Your task to perform on an android device: Clear all items from cart on newegg.com. Search for bose soundsport free on newegg.com, select the first entry, and add it to the cart. Image 0: 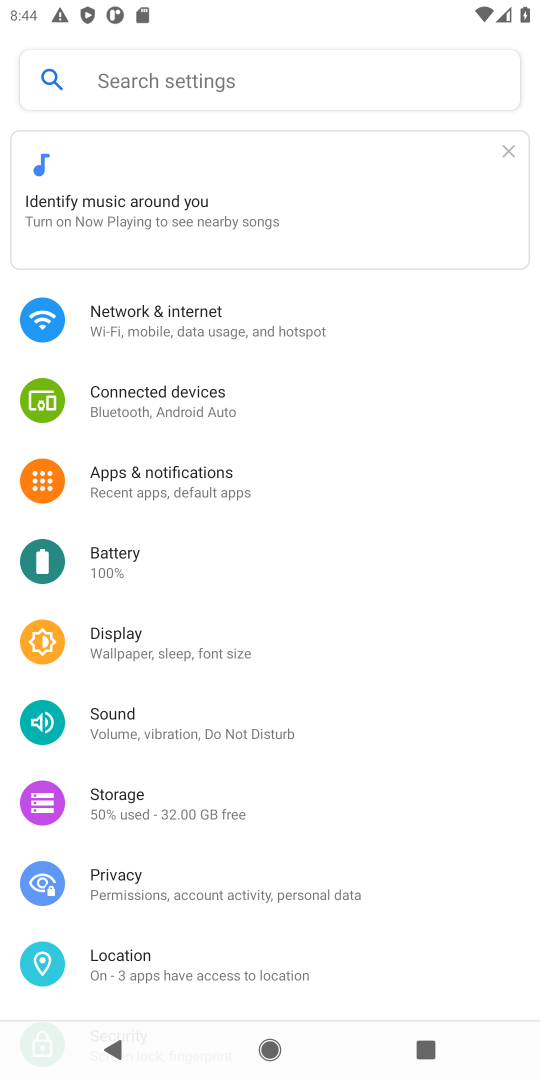
Step 0: press home button
Your task to perform on an android device: Clear all items from cart on newegg.com. Search for bose soundsport free on newegg.com, select the first entry, and add it to the cart. Image 1: 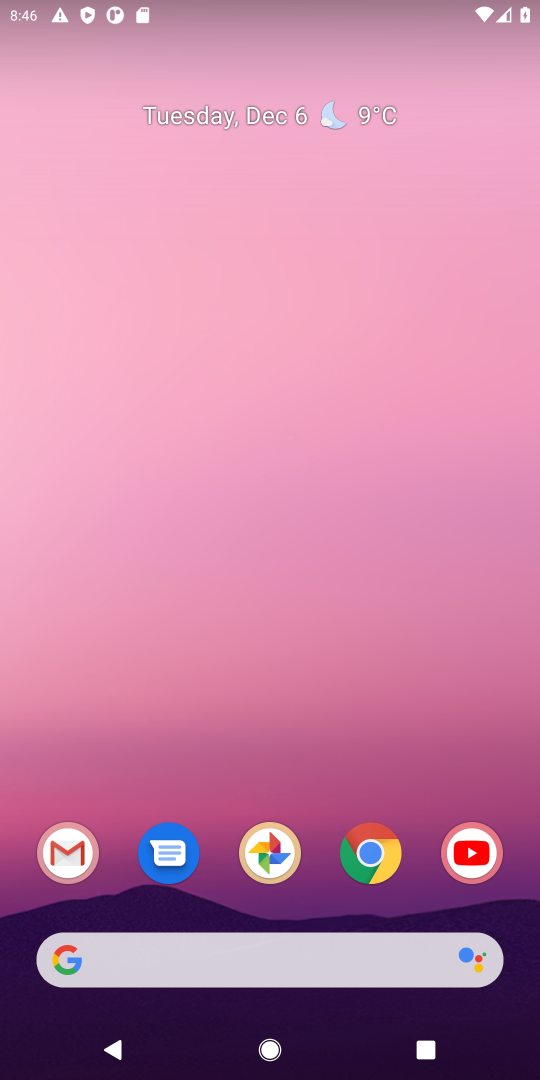
Step 1: click (360, 875)
Your task to perform on an android device: Clear all items from cart on newegg.com. Search for bose soundsport free on newegg.com, select the first entry, and add it to the cart. Image 2: 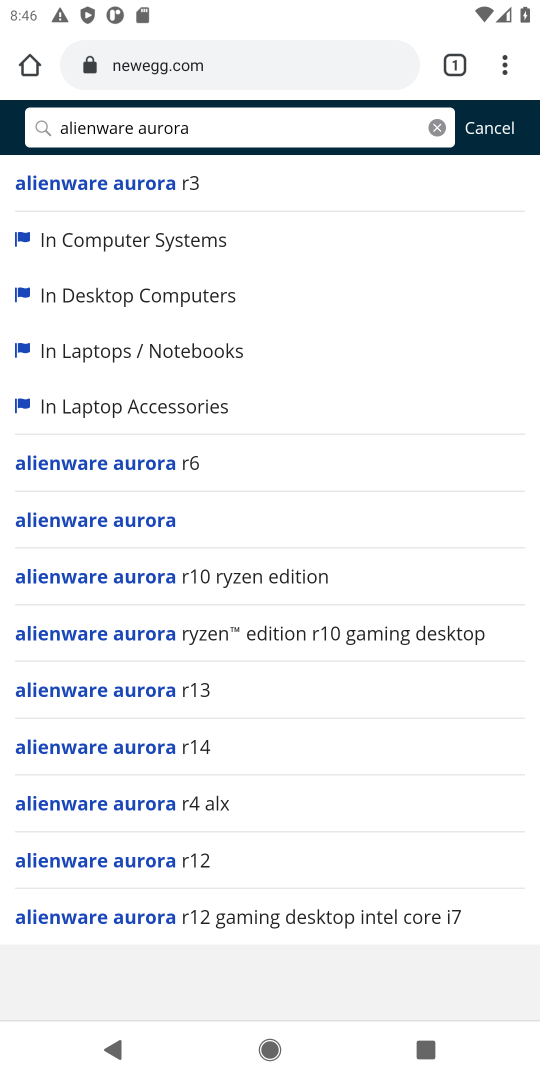
Step 2: click (436, 131)
Your task to perform on an android device: Clear all items from cart on newegg.com. Search for bose soundsport free on newegg.com, select the first entry, and add it to the cart. Image 3: 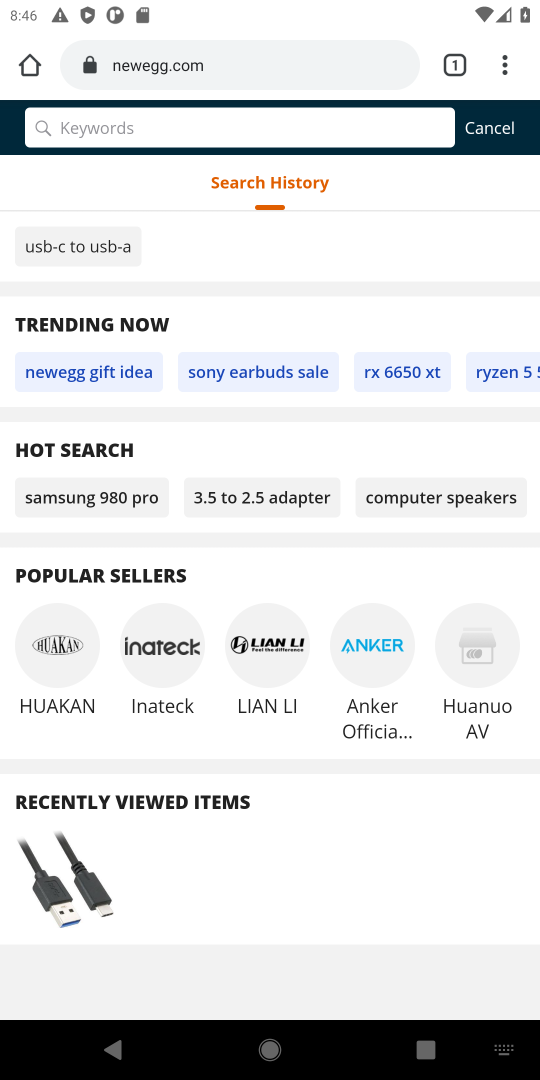
Step 3: click (27, 67)
Your task to perform on an android device: Clear all items from cart on newegg.com. Search for bose soundsport free on newegg.com, select the first entry, and add it to the cart. Image 4: 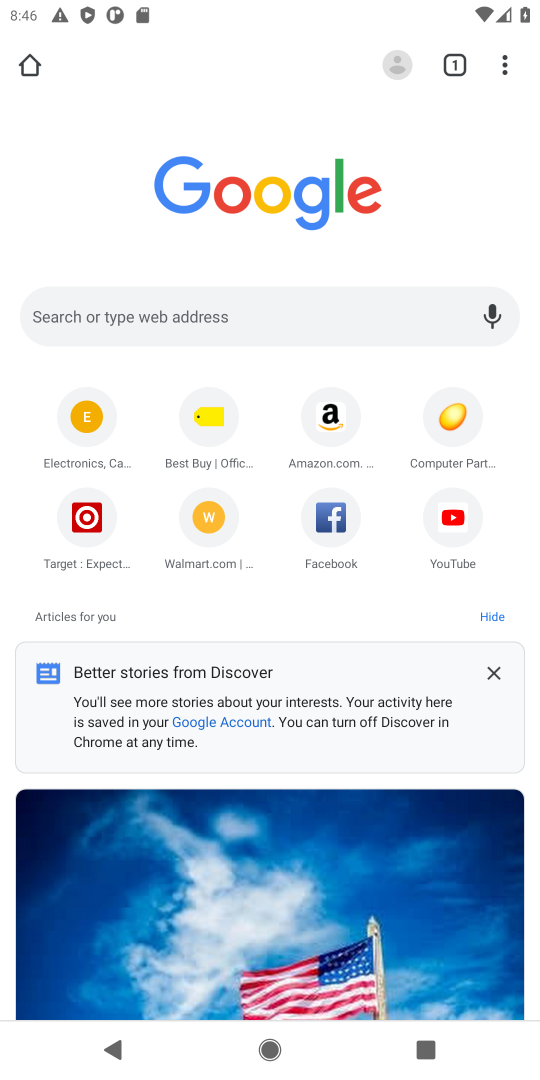
Step 4: click (265, 324)
Your task to perform on an android device: Clear all items from cart on newegg.com. Search for bose soundsport free on newegg.com, select the first entry, and add it to the cart. Image 5: 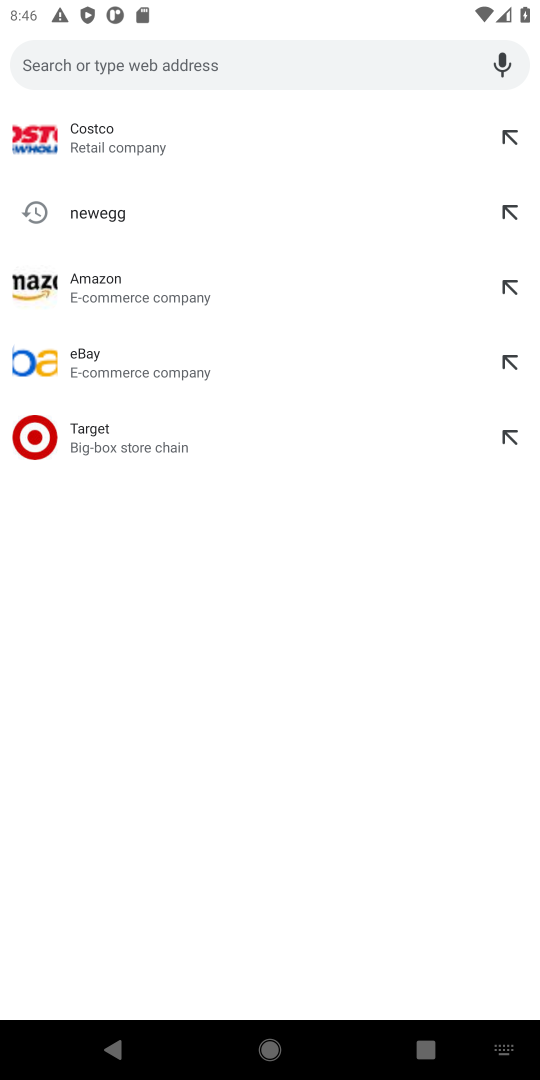
Step 5: click (119, 220)
Your task to perform on an android device: Clear all items from cart on newegg.com. Search for bose soundsport free on newegg.com, select the first entry, and add it to the cart. Image 6: 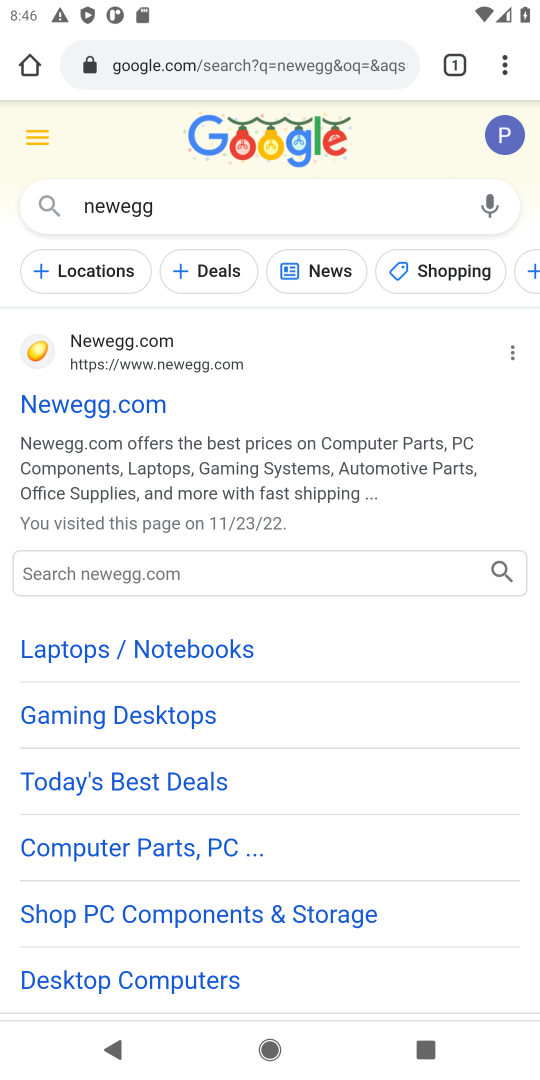
Step 6: click (105, 402)
Your task to perform on an android device: Clear all items from cart on newegg.com. Search for bose soundsport free on newegg.com, select the first entry, and add it to the cart. Image 7: 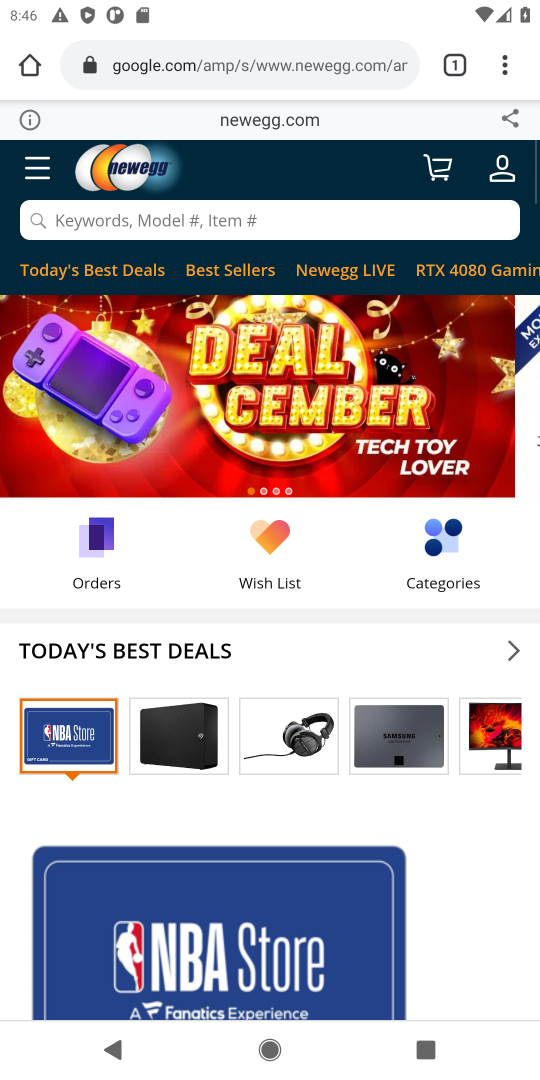
Step 7: task complete